Your task to perform on an android device: toggle notifications settings in the gmail app Image 0: 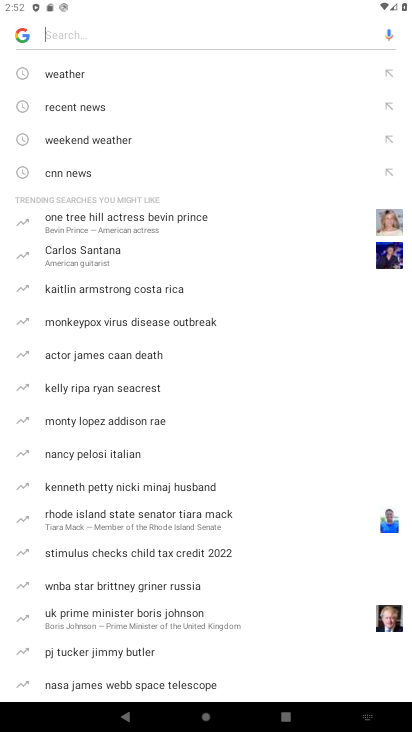
Step 0: press home button
Your task to perform on an android device: toggle notifications settings in the gmail app Image 1: 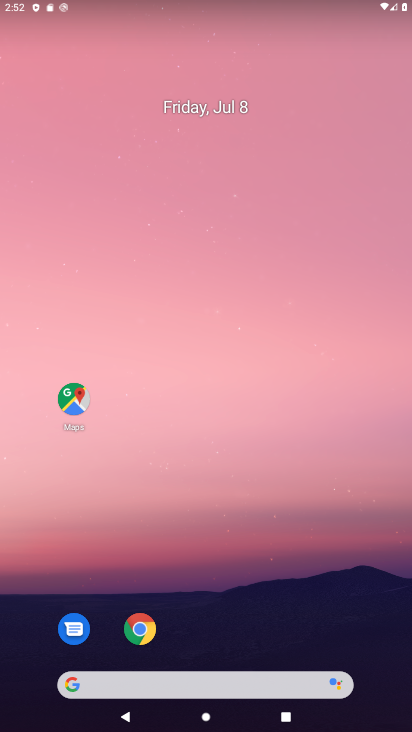
Step 1: drag from (225, 646) to (266, 76)
Your task to perform on an android device: toggle notifications settings in the gmail app Image 2: 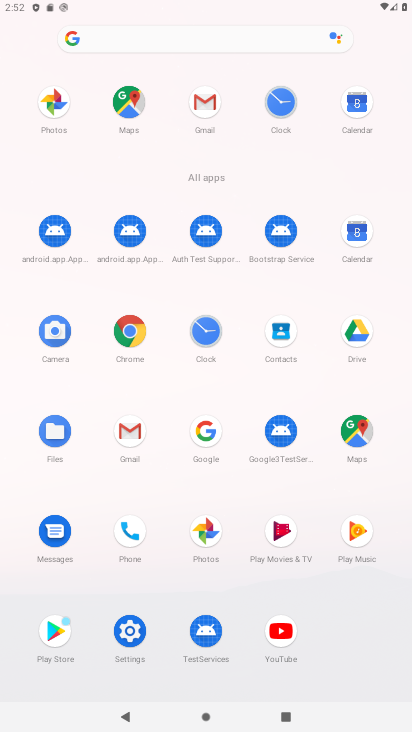
Step 2: click (129, 427)
Your task to perform on an android device: toggle notifications settings in the gmail app Image 3: 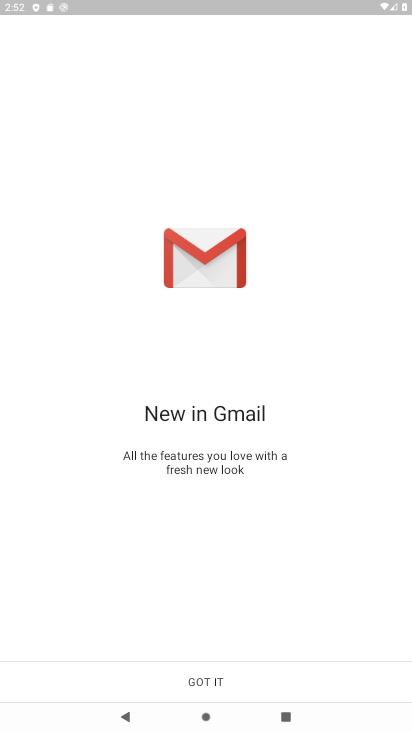
Step 3: click (209, 680)
Your task to perform on an android device: toggle notifications settings in the gmail app Image 4: 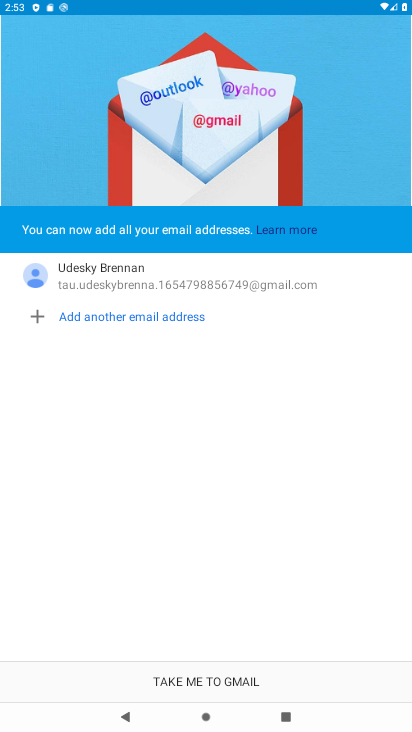
Step 4: click (204, 680)
Your task to perform on an android device: toggle notifications settings in the gmail app Image 5: 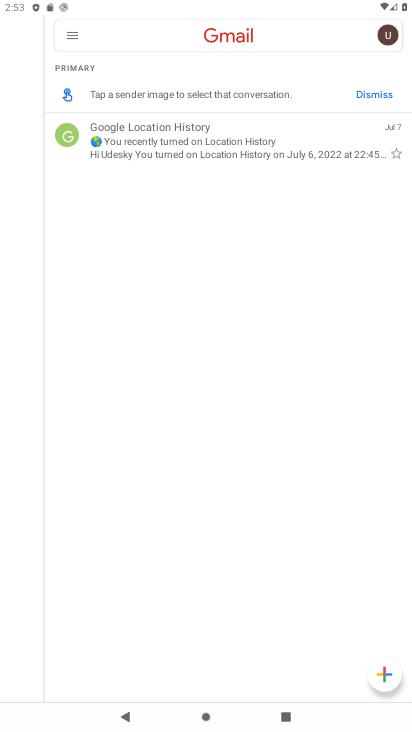
Step 5: click (72, 37)
Your task to perform on an android device: toggle notifications settings in the gmail app Image 6: 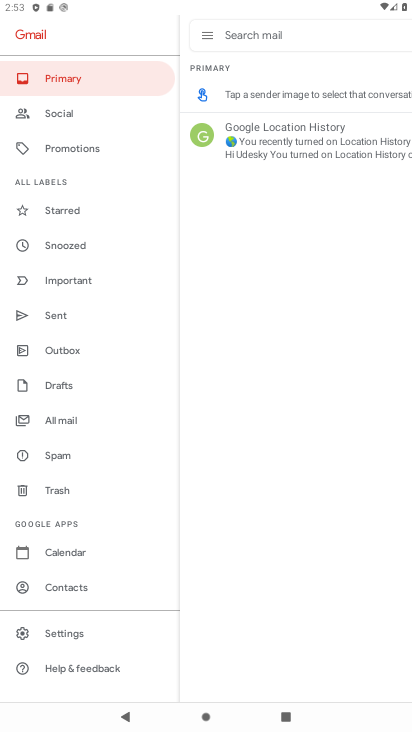
Step 6: click (90, 630)
Your task to perform on an android device: toggle notifications settings in the gmail app Image 7: 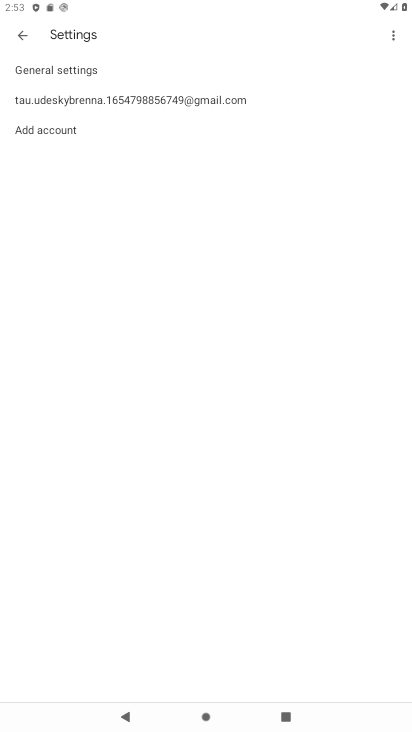
Step 7: click (101, 71)
Your task to perform on an android device: toggle notifications settings in the gmail app Image 8: 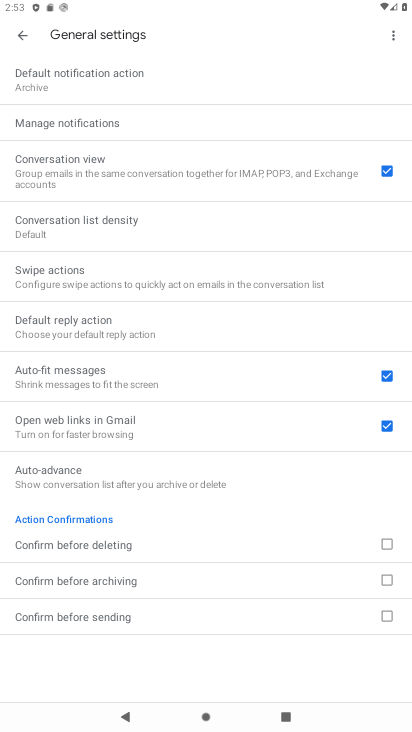
Step 8: click (117, 118)
Your task to perform on an android device: toggle notifications settings in the gmail app Image 9: 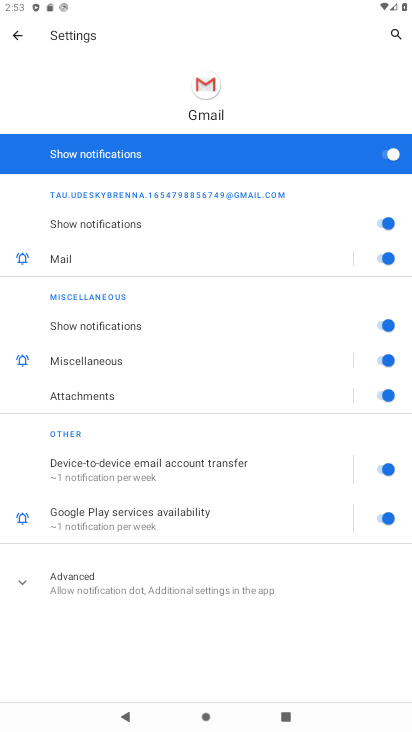
Step 9: click (381, 155)
Your task to perform on an android device: toggle notifications settings in the gmail app Image 10: 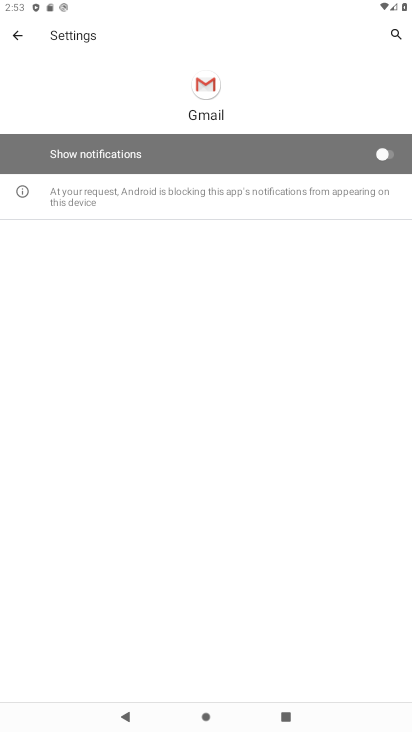
Step 10: task complete